Your task to perform on an android device: turn off sleep mode Image 0: 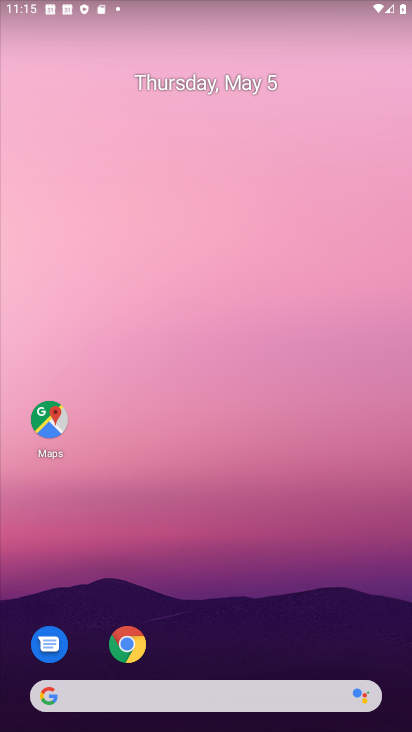
Step 0: drag from (180, 670) to (226, 222)
Your task to perform on an android device: turn off sleep mode Image 1: 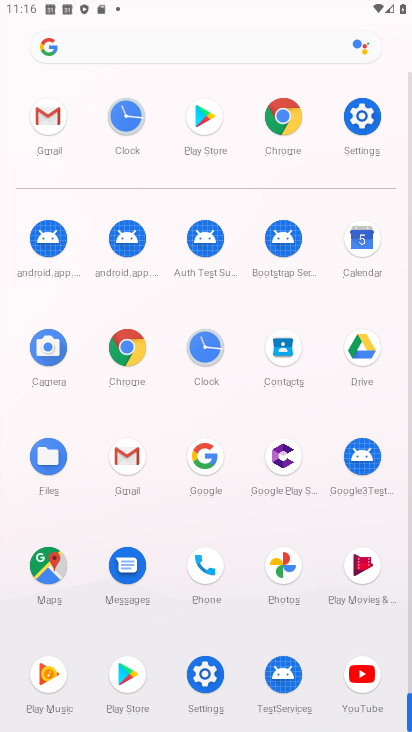
Step 1: click (196, 660)
Your task to perform on an android device: turn off sleep mode Image 2: 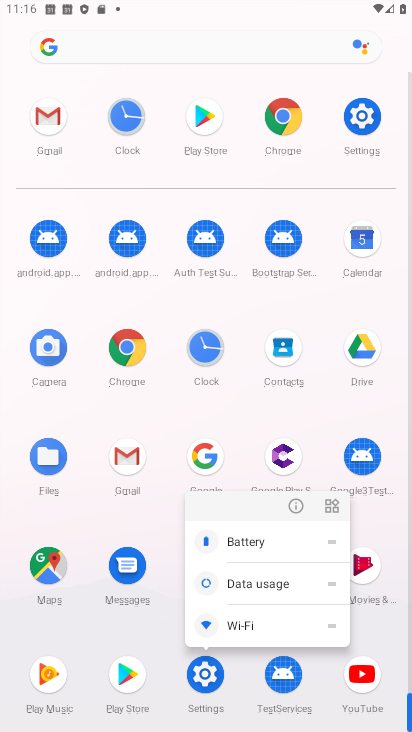
Step 2: click (296, 499)
Your task to perform on an android device: turn off sleep mode Image 3: 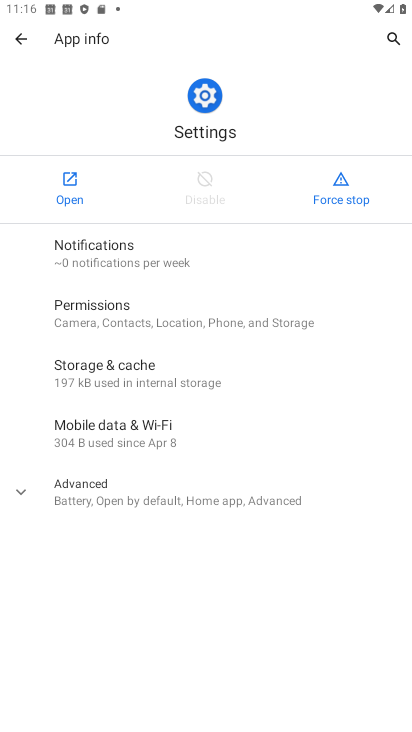
Step 3: click (79, 190)
Your task to perform on an android device: turn off sleep mode Image 4: 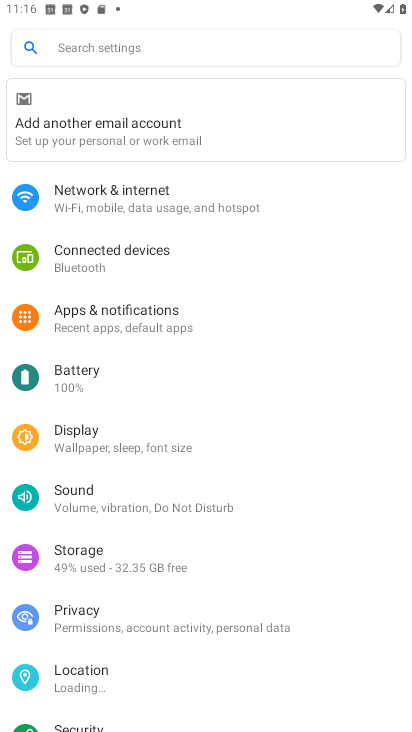
Step 4: drag from (163, 595) to (192, 318)
Your task to perform on an android device: turn off sleep mode Image 5: 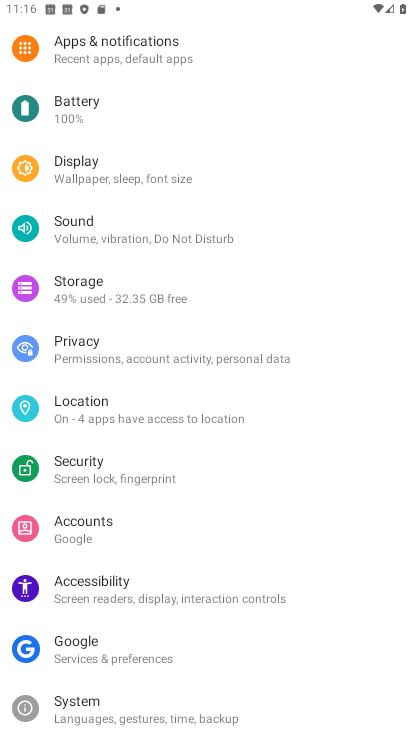
Step 5: click (88, 175)
Your task to perform on an android device: turn off sleep mode Image 6: 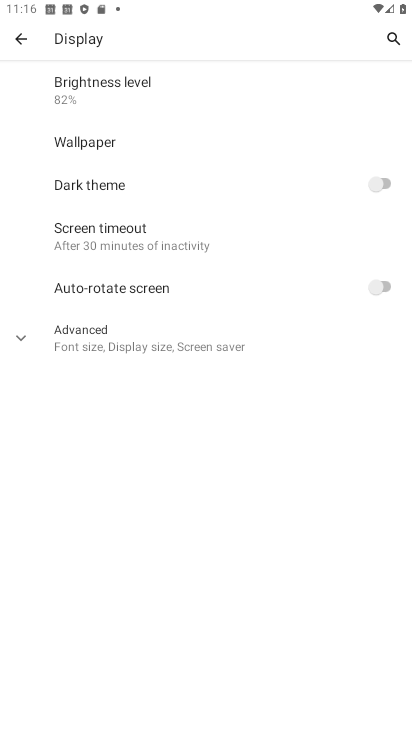
Step 6: click (199, 224)
Your task to perform on an android device: turn off sleep mode Image 7: 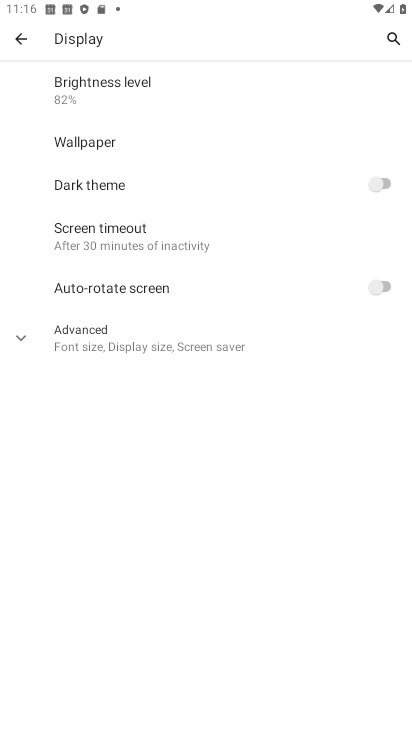
Step 7: click (199, 224)
Your task to perform on an android device: turn off sleep mode Image 8: 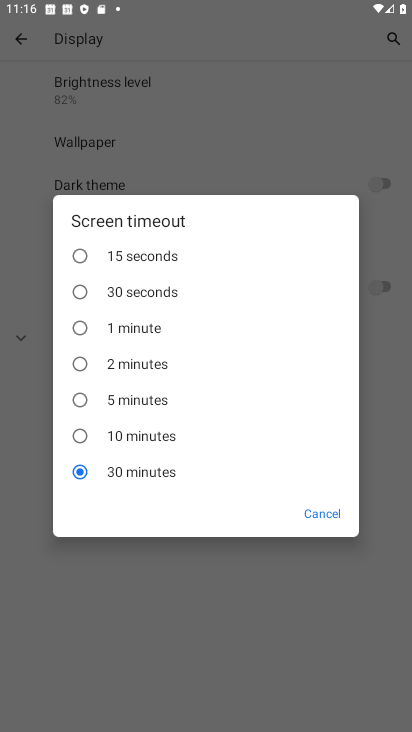
Step 8: task complete